Your task to perform on an android device: What's on my calendar tomorrow? Image 0: 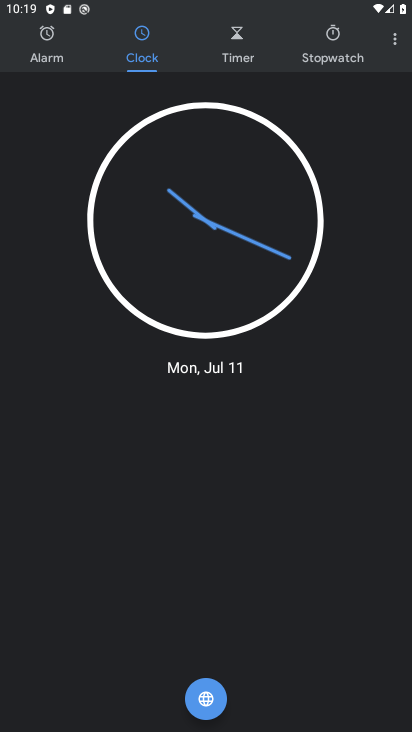
Step 0: press back button
Your task to perform on an android device: What's on my calendar tomorrow? Image 1: 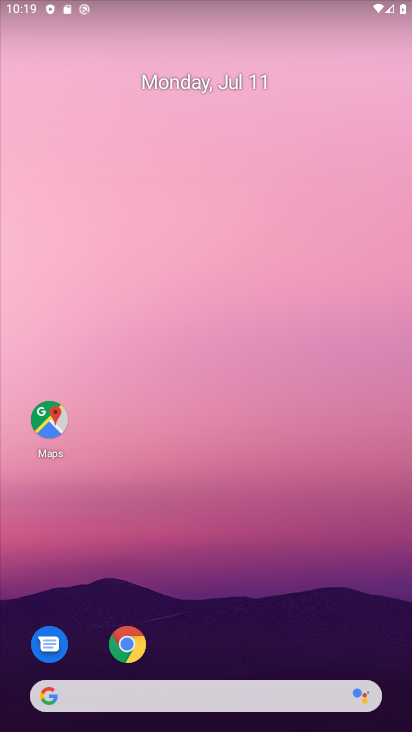
Step 1: drag from (270, 699) to (180, 157)
Your task to perform on an android device: What's on my calendar tomorrow? Image 2: 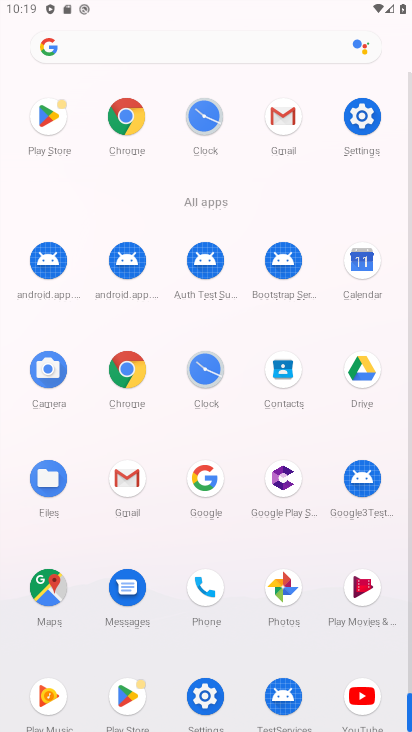
Step 2: click (357, 251)
Your task to perform on an android device: What's on my calendar tomorrow? Image 3: 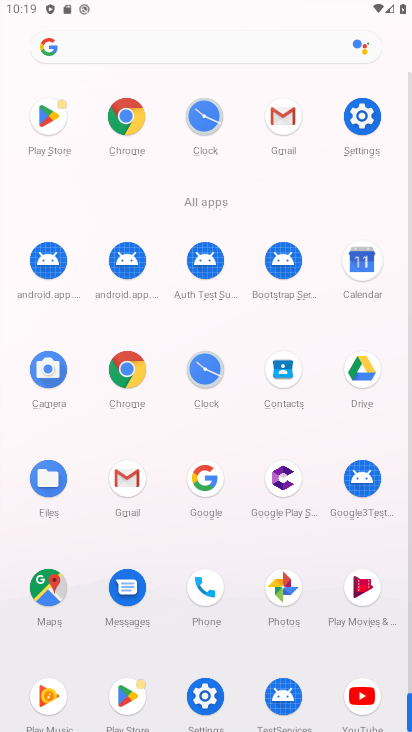
Step 3: click (360, 251)
Your task to perform on an android device: What's on my calendar tomorrow? Image 4: 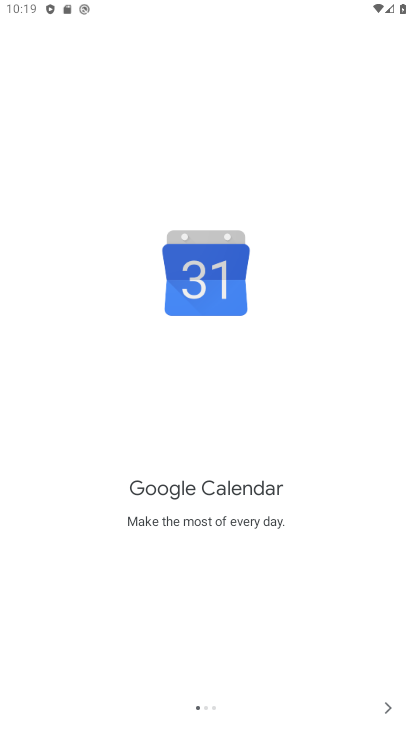
Step 4: click (394, 701)
Your task to perform on an android device: What's on my calendar tomorrow? Image 5: 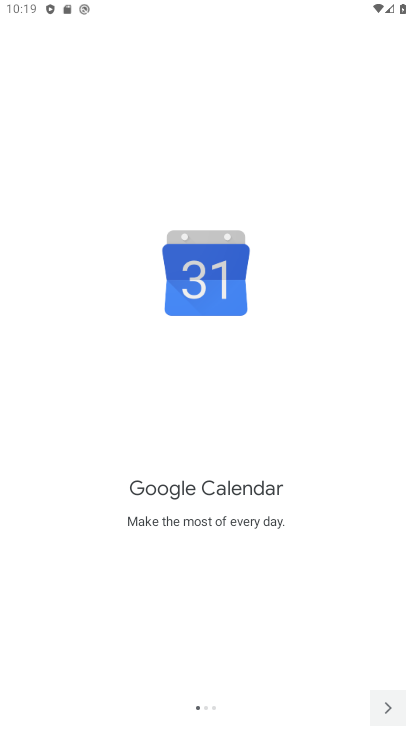
Step 5: click (387, 699)
Your task to perform on an android device: What's on my calendar tomorrow? Image 6: 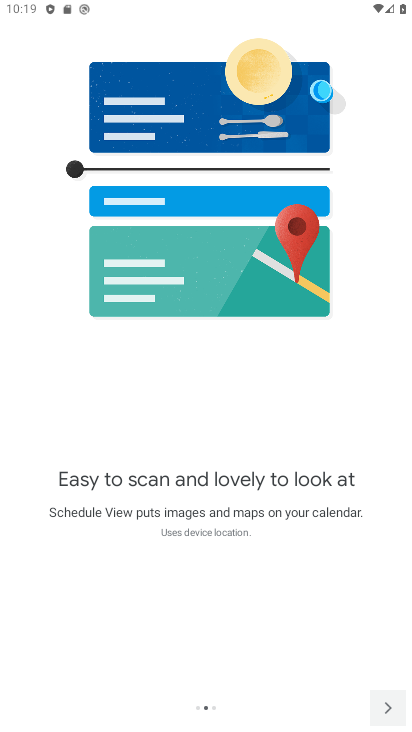
Step 6: click (386, 699)
Your task to perform on an android device: What's on my calendar tomorrow? Image 7: 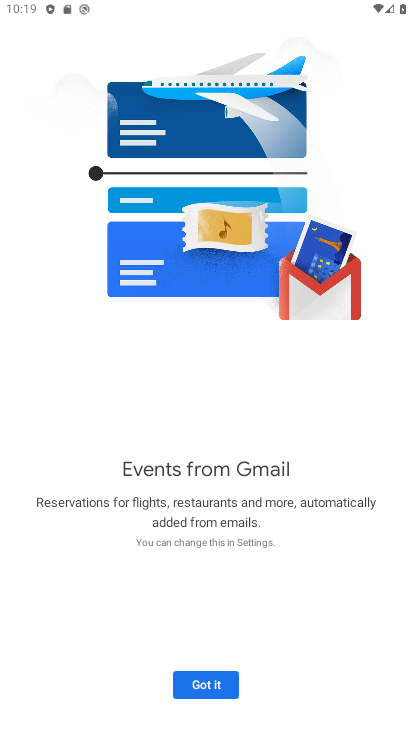
Step 7: click (210, 680)
Your task to perform on an android device: What's on my calendar tomorrow? Image 8: 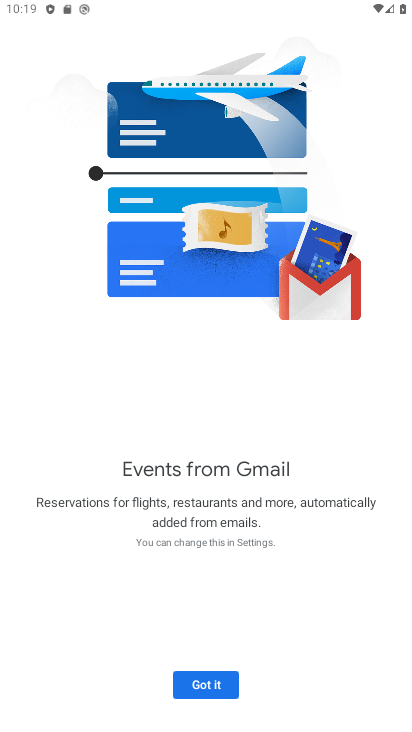
Step 8: click (207, 679)
Your task to perform on an android device: What's on my calendar tomorrow? Image 9: 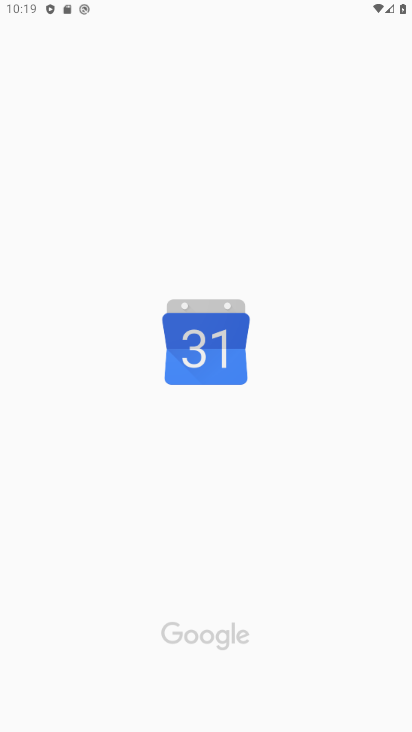
Step 9: click (208, 678)
Your task to perform on an android device: What's on my calendar tomorrow? Image 10: 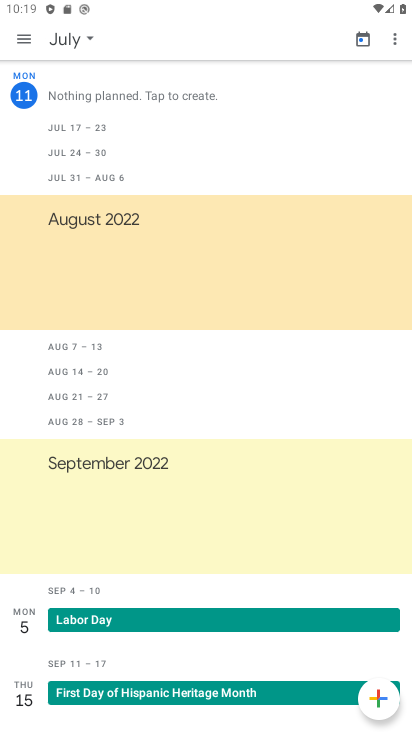
Step 10: click (93, 36)
Your task to perform on an android device: What's on my calendar tomorrow? Image 11: 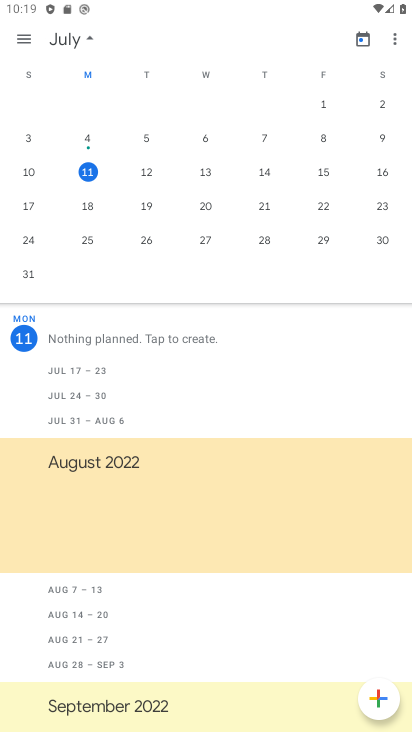
Step 11: click (206, 170)
Your task to perform on an android device: What's on my calendar tomorrow? Image 12: 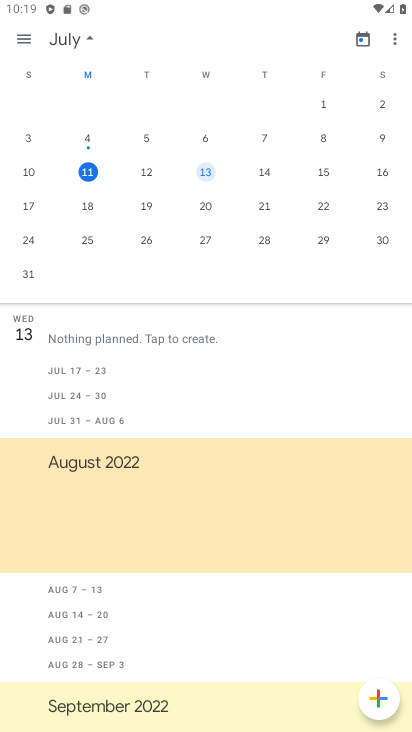
Step 12: click (206, 170)
Your task to perform on an android device: What's on my calendar tomorrow? Image 13: 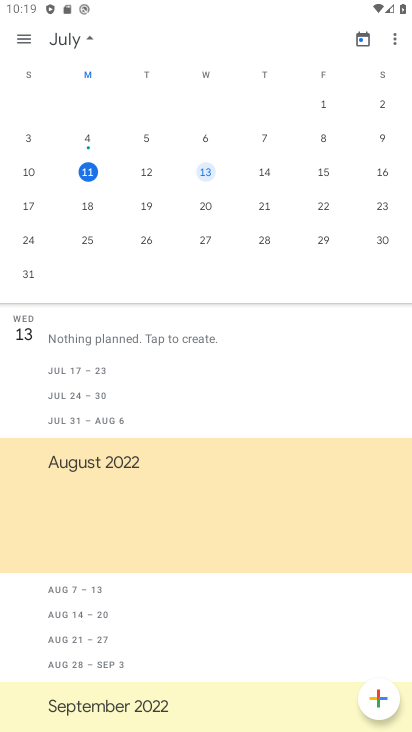
Step 13: click (206, 170)
Your task to perform on an android device: What's on my calendar tomorrow? Image 14: 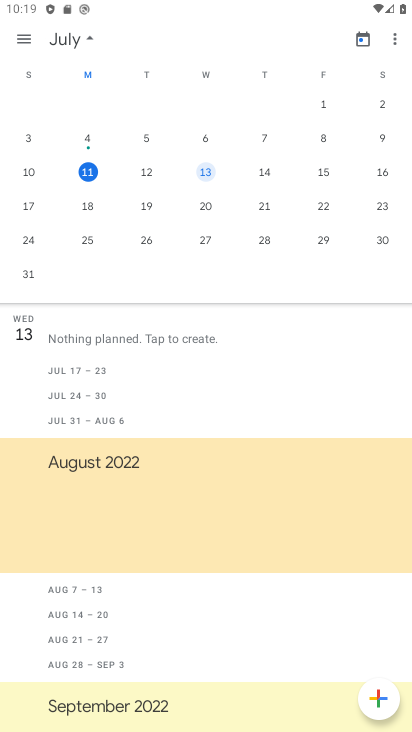
Step 14: click (200, 172)
Your task to perform on an android device: What's on my calendar tomorrow? Image 15: 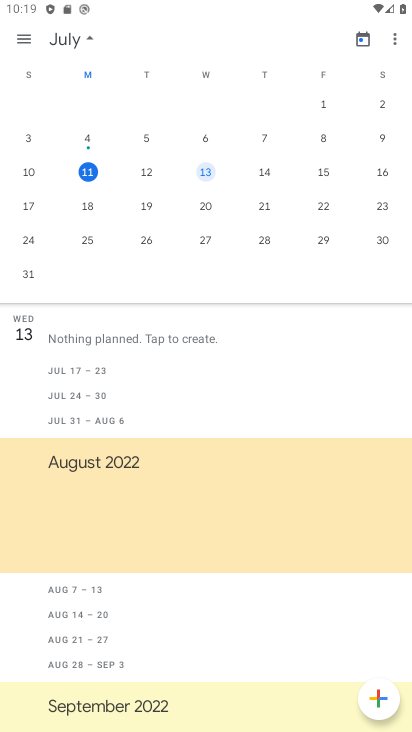
Step 15: task complete